Your task to perform on an android device: Go to Google maps Image 0: 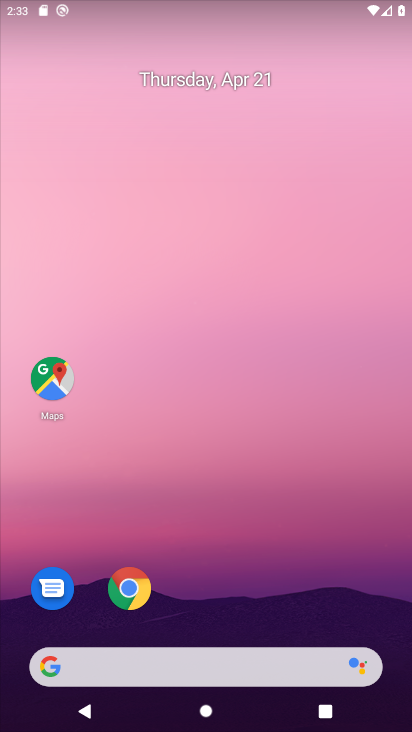
Step 0: drag from (303, 208) to (301, 56)
Your task to perform on an android device: Go to Google maps Image 1: 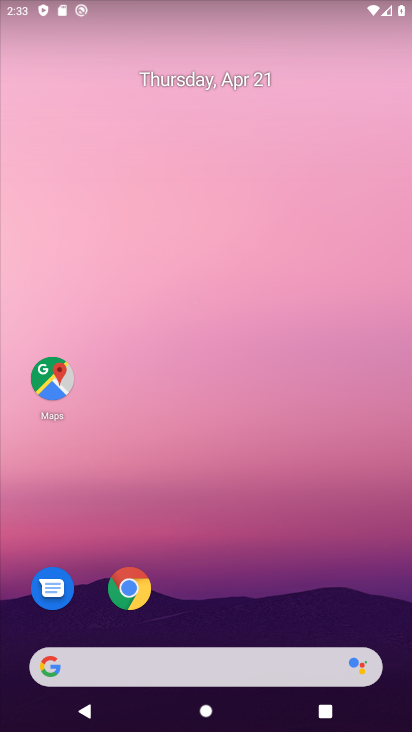
Step 1: drag from (314, 575) to (345, 66)
Your task to perform on an android device: Go to Google maps Image 2: 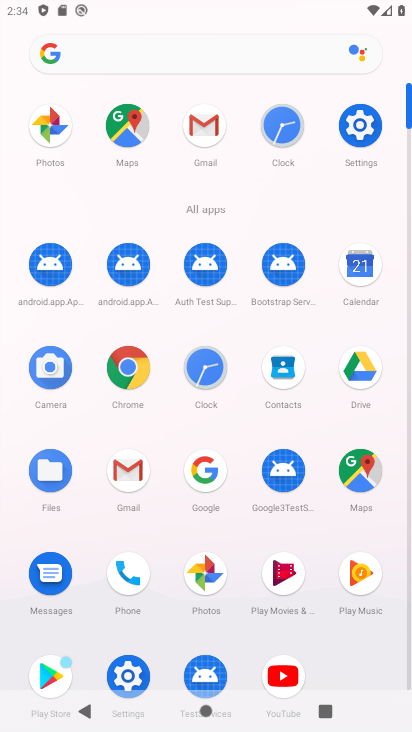
Step 2: click (354, 471)
Your task to perform on an android device: Go to Google maps Image 3: 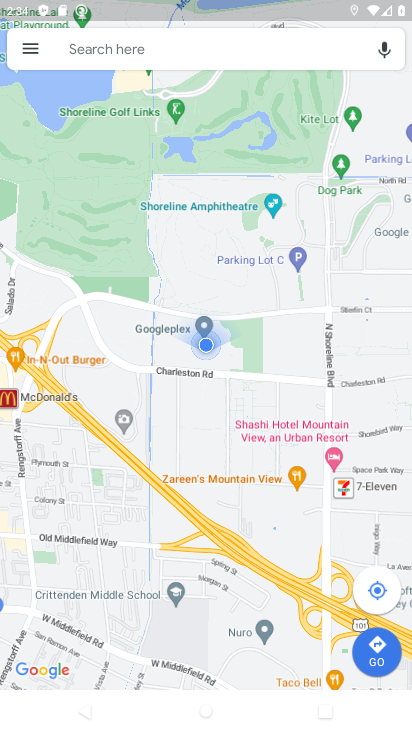
Step 3: task complete